Your task to perform on an android device: Check the weather Image 0: 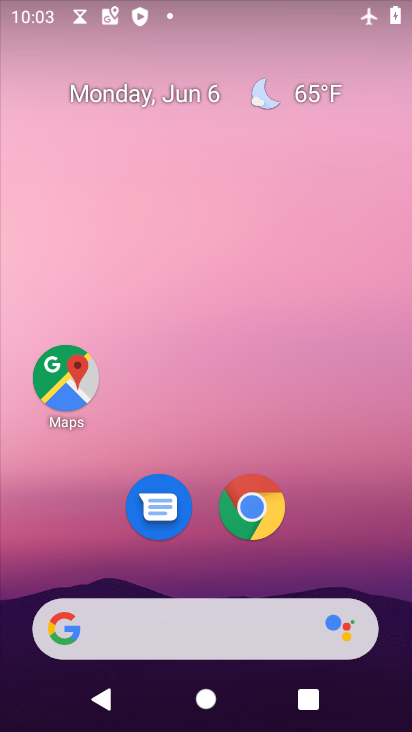
Step 0: click (240, 498)
Your task to perform on an android device: Check the weather Image 1: 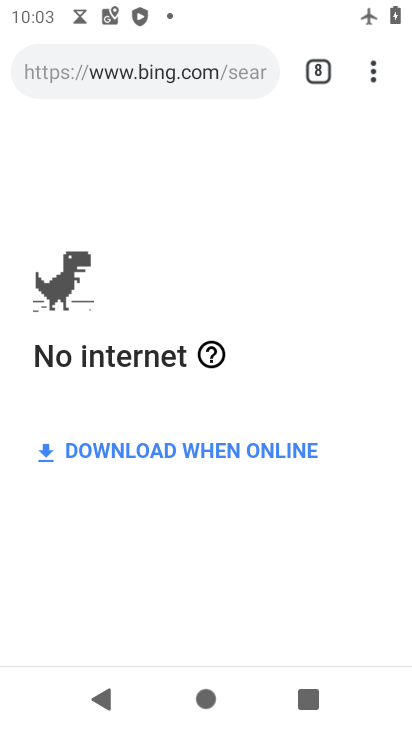
Step 1: click (363, 72)
Your task to perform on an android device: Check the weather Image 2: 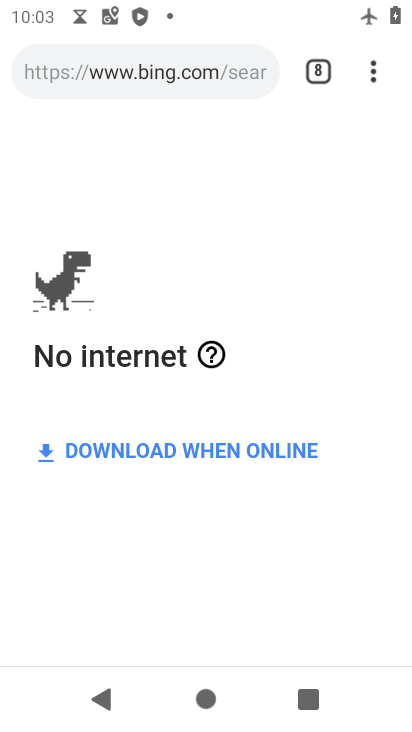
Step 2: click (376, 63)
Your task to perform on an android device: Check the weather Image 3: 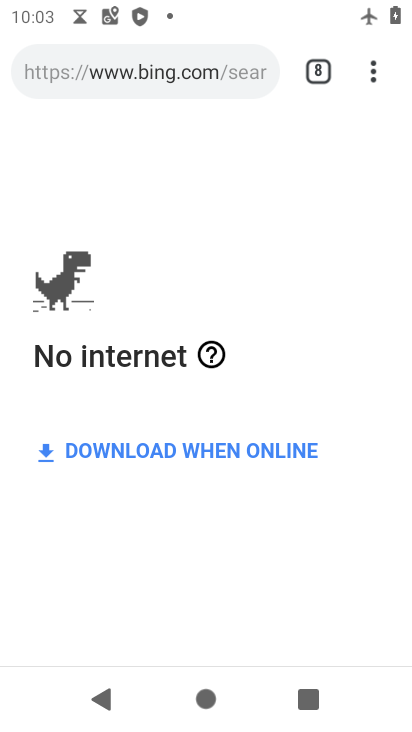
Step 3: click (384, 72)
Your task to perform on an android device: Check the weather Image 4: 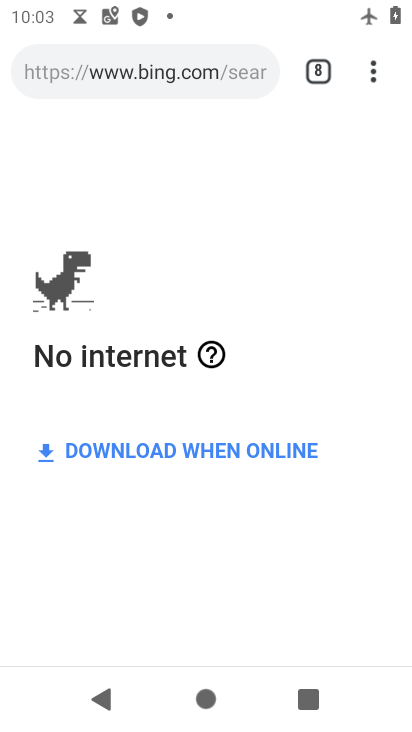
Step 4: click (369, 71)
Your task to perform on an android device: Check the weather Image 5: 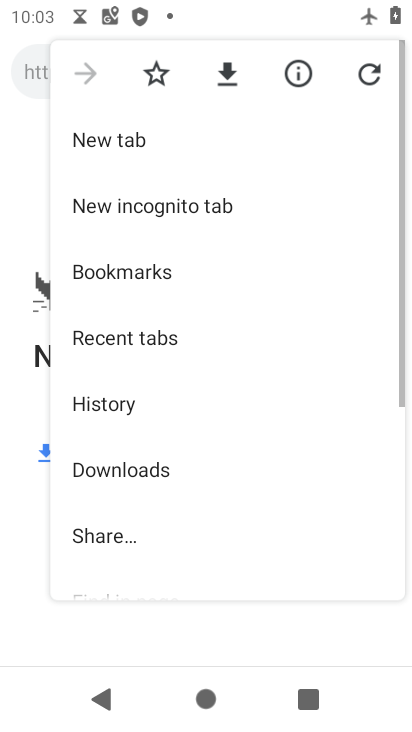
Step 5: click (111, 125)
Your task to perform on an android device: Check the weather Image 6: 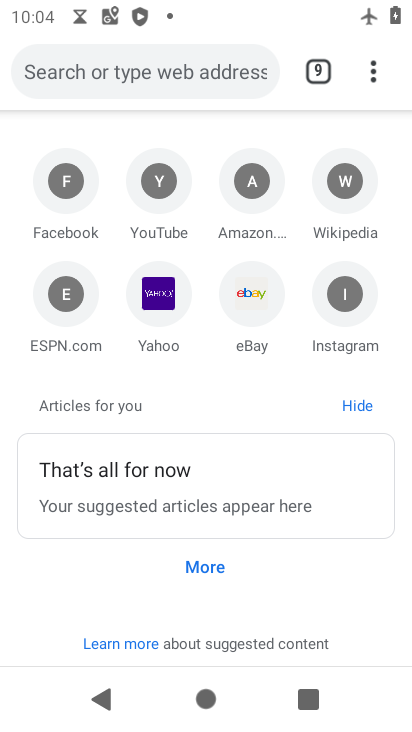
Step 6: click (114, 58)
Your task to perform on an android device: Check the weather Image 7: 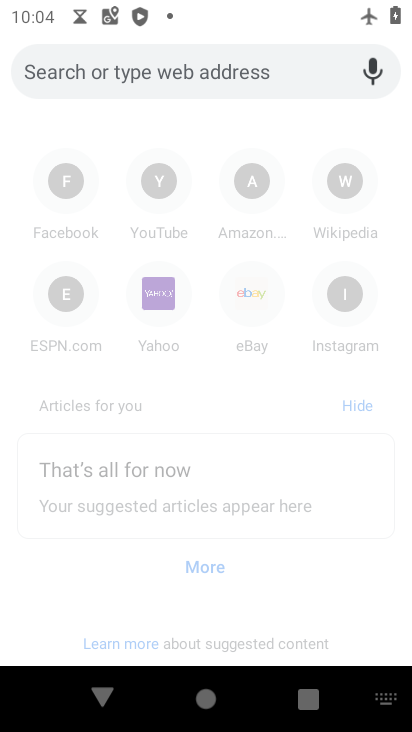
Step 7: type "Check the weather"
Your task to perform on an android device: Check the weather Image 8: 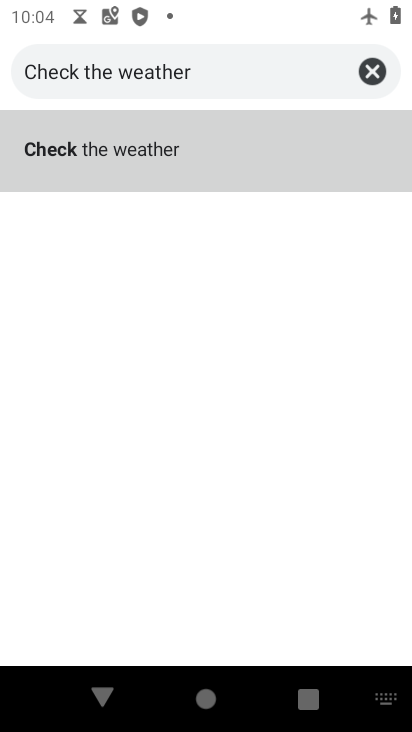
Step 8: click (249, 165)
Your task to perform on an android device: Check the weather Image 9: 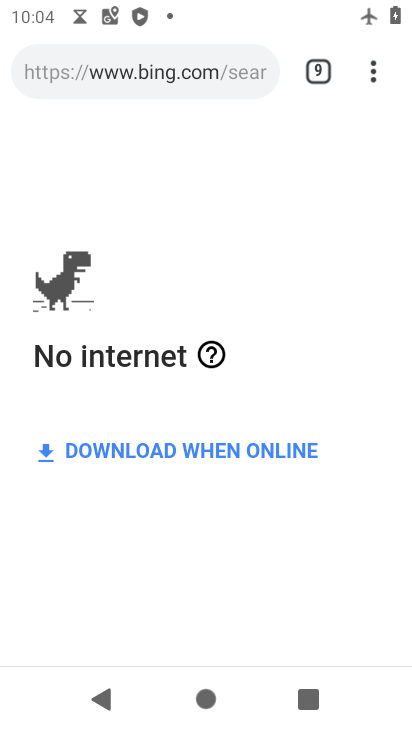
Step 9: task complete